Your task to perform on an android device: find photos in the google photos app Image 0: 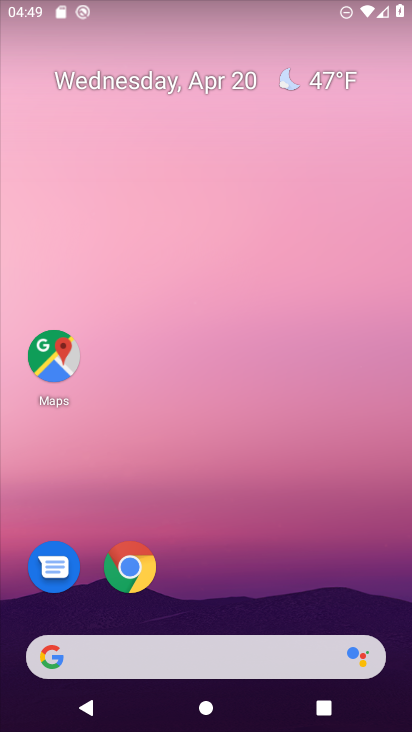
Step 0: drag from (196, 618) to (181, 37)
Your task to perform on an android device: find photos in the google photos app Image 1: 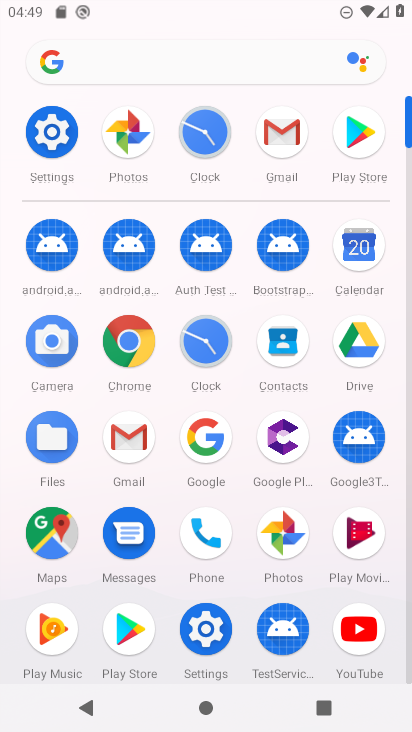
Step 1: click (286, 542)
Your task to perform on an android device: find photos in the google photos app Image 2: 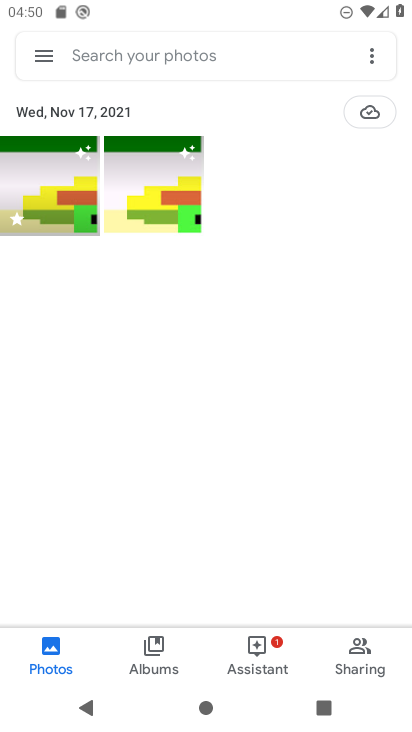
Step 2: task complete